Your task to perform on an android device: What's the weather going to be tomorrow? Image 0: 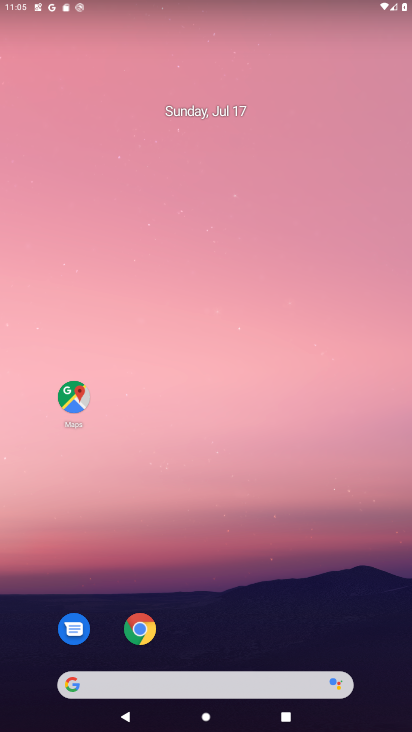
Step 0: drag from (204, 681) to (227, 250)
Your task to perform on an android device: What's the weather going to be tomorrow? Image 1: 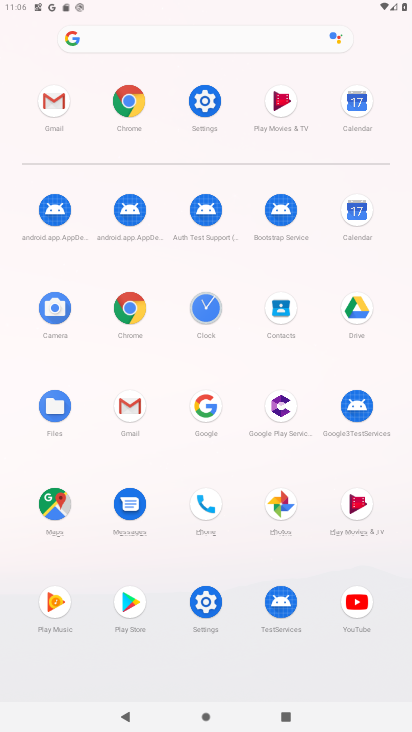
Step 1: click (203, 403)
Your task to perform on an android device: What's the weather going to be tomorrow? Image 2: 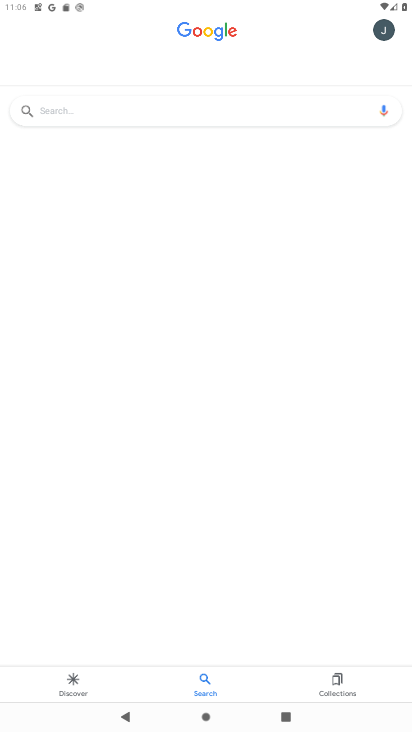
Step 2: click (172, 110)
Your task to perform on an android device: What's the weather going to be tomorrow? Image 3: 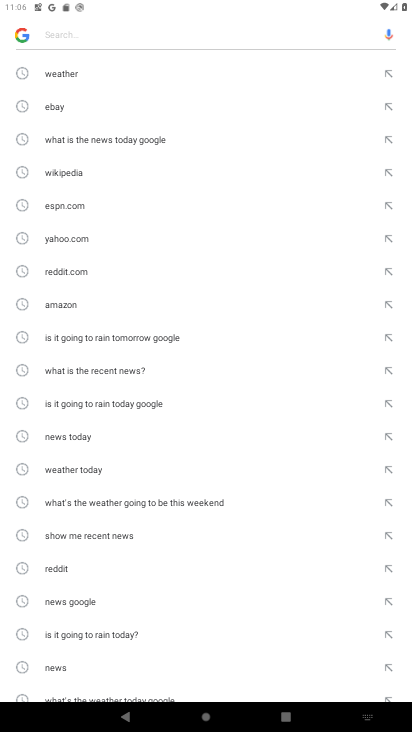
Step 3: click (78, 78)
Your task to perform on an android device: What's the weather going to be tomorrow? Image 4: 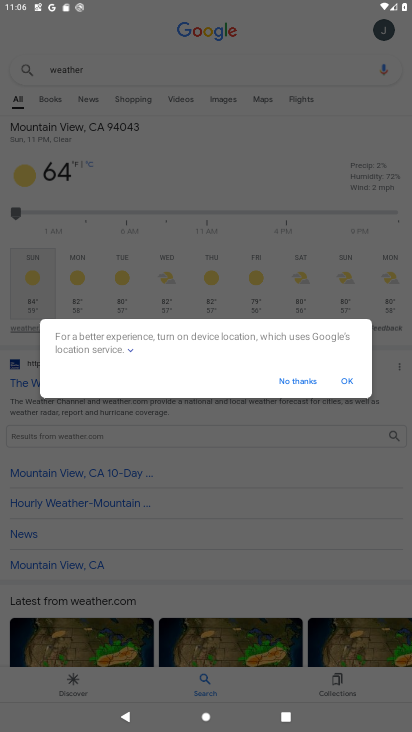
Step 4: click (307, 388)
Your task to perform on an android device: What's the weather going to be tomorrow? Image 5: 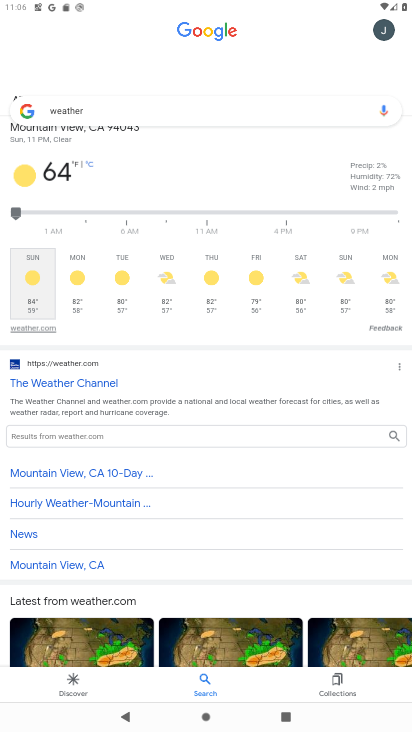
Step 5: click (83, 291)
Your task to perform on an android device: What's the weather going to be tomorrow? Image 6: 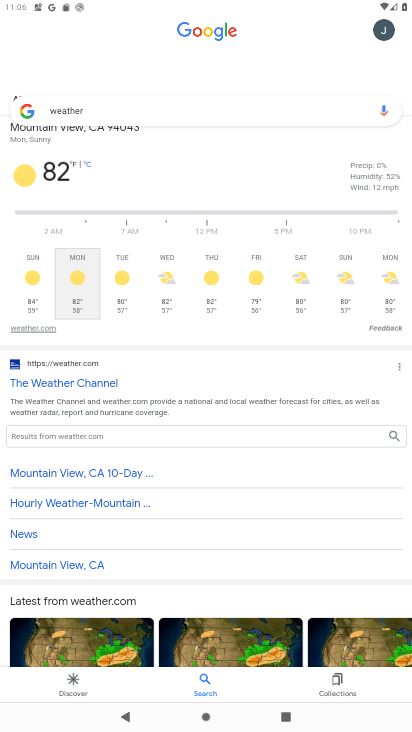
Step 6: task complete